Your task to perform on an android device: Open ESPN.com Image 0: 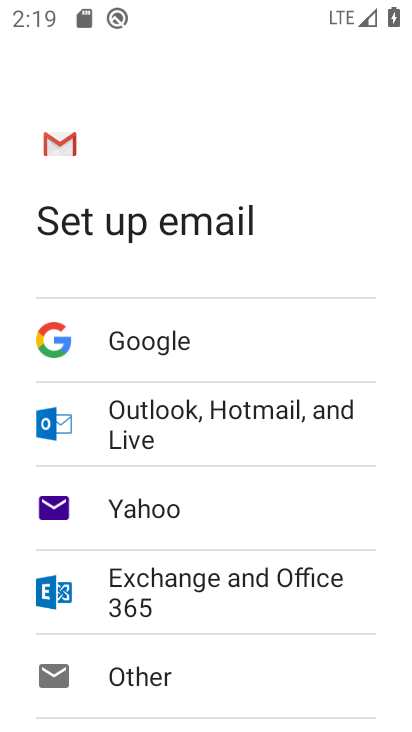
Step 0: type "ESPN.com"
Your task to perform on an android device: Open ESPN.com Image 1: 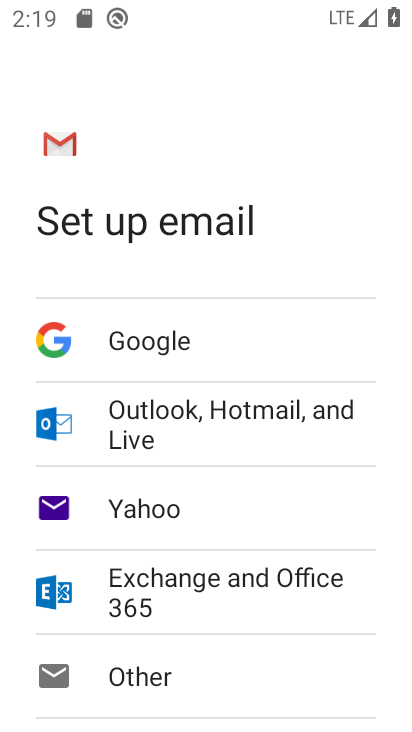
Step 1: click (237, 419)
Your task to perform on an android device: Open ESPN.com Image 2: 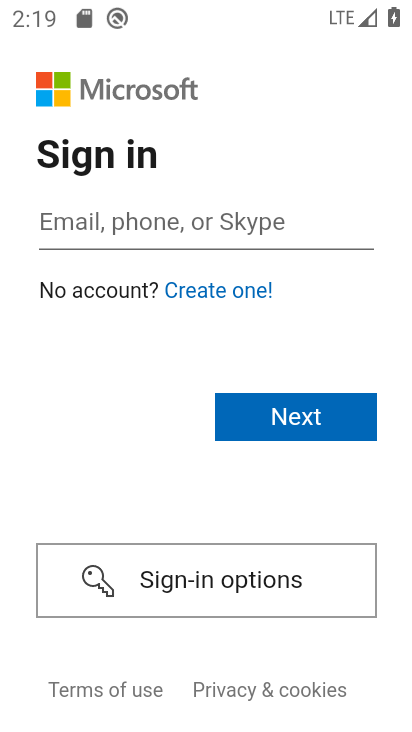
Step 2: press back button
Your task to perform on an android device: Open ESPN.com Image 3: 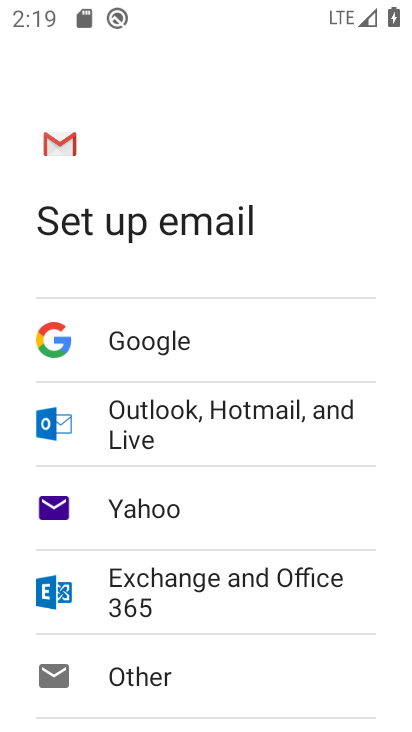
Step 3: press back button
Your task to perform on an android device: Open ESPN.com Image 4: 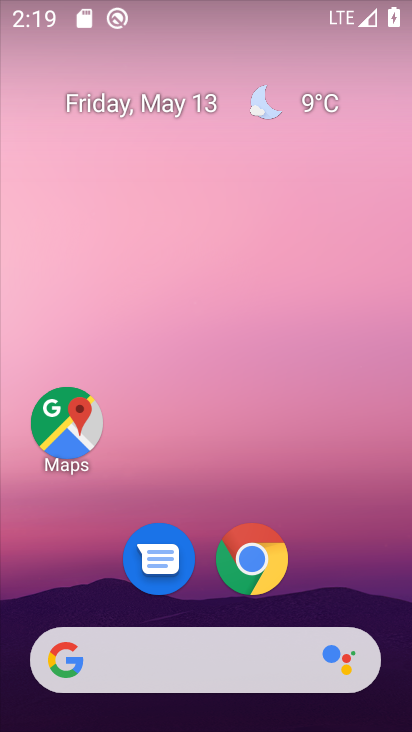
Step 4: click (256, 552)
Your task to perform on an android device: Open ESPN.com Image 5: 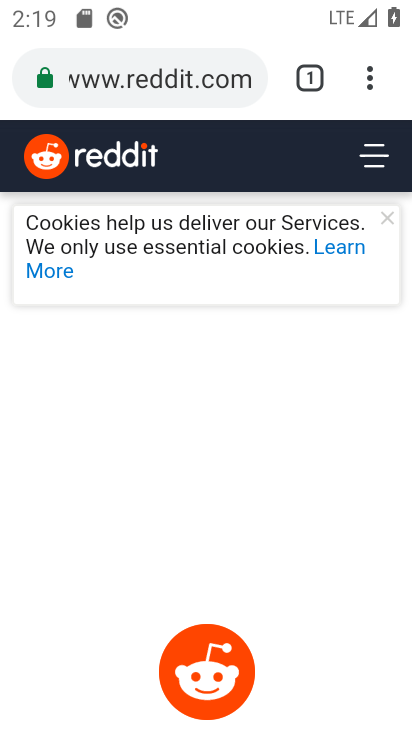
Step 5: click (255, 85)
Your task to perform on an android device: Open ESPN.com Image 6: 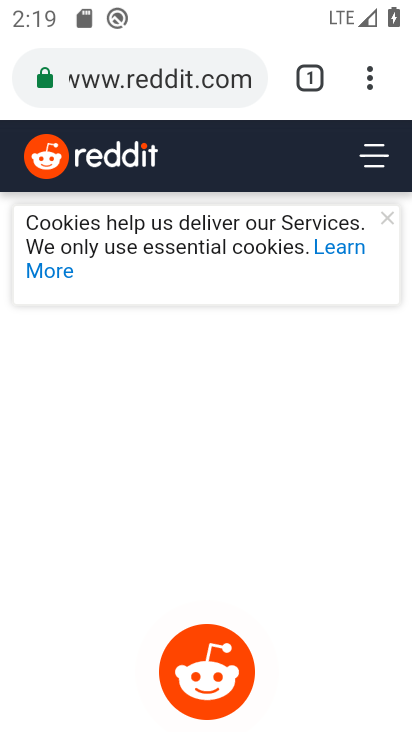
Step 6: click (254, 75)
Your task to perform on an android device: Open ESPN.com Image 7: 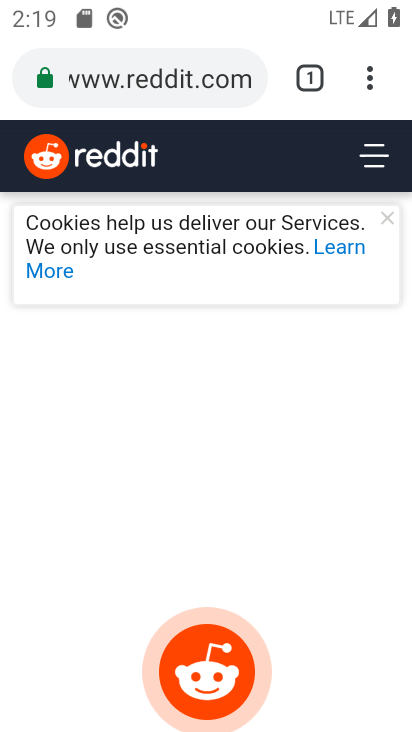
Step 7: click (254, 79)
Your task to perform on an android device: Open ESPN.com Image 8: 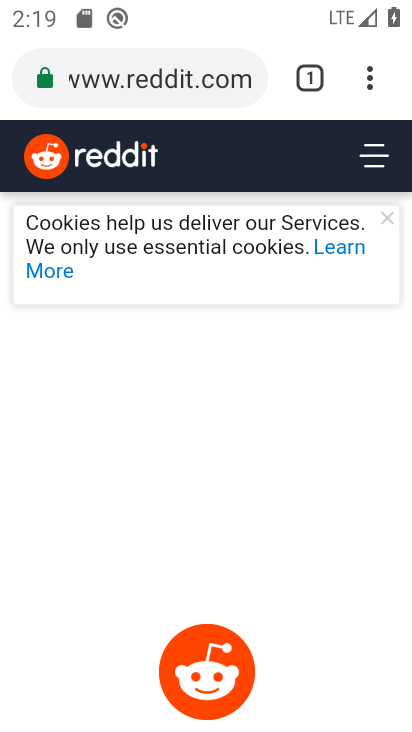
Step 8: click (250, 78)
Your task to perform on an android device: Open ESPN.com Image 9: 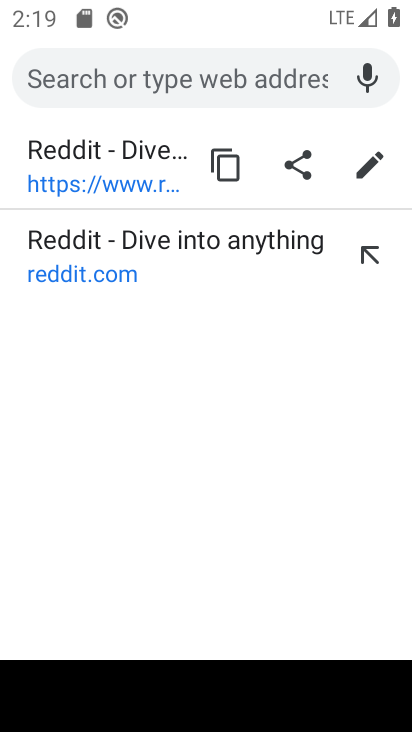
Step 9: type "ESPN.com"
Your task to perform on an android device: Open ESPN.com Image 10: 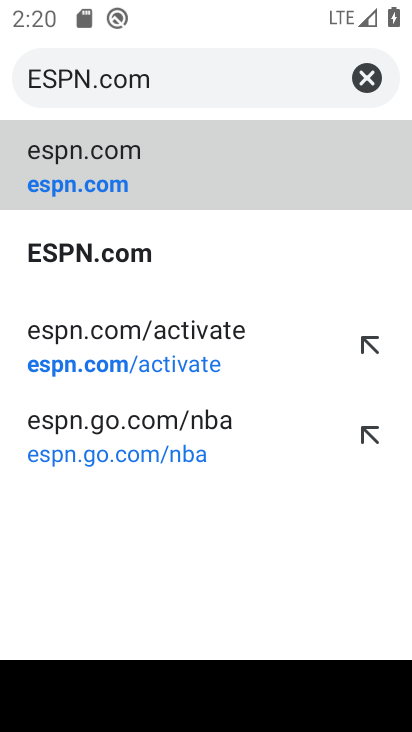
Step 10: click (72, 256)
Your task to perform on an android device: Open ESPN.com Image 11: 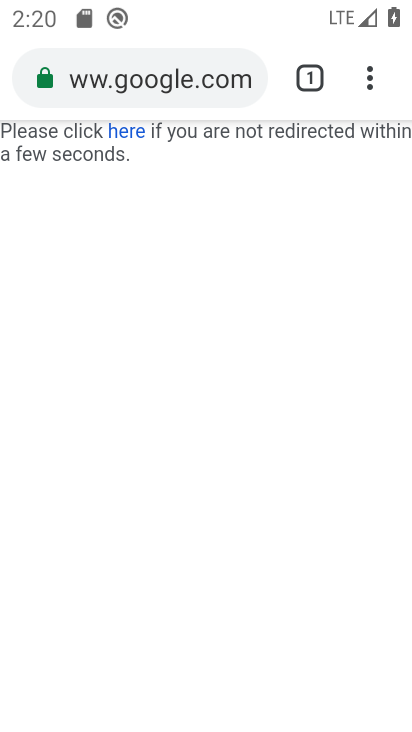
Step 11: click (72, 255)
Your task to perform on an android device: Open ESPN.com Image 12: 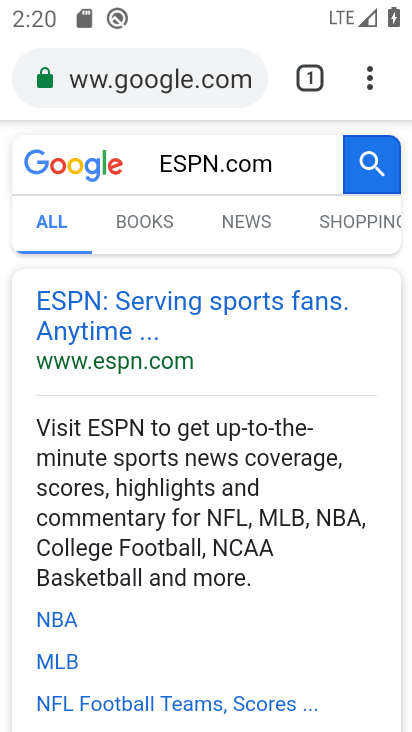
Step 12: task complete